Your task to perform on an android device: open sync settings in chrome Image 0: 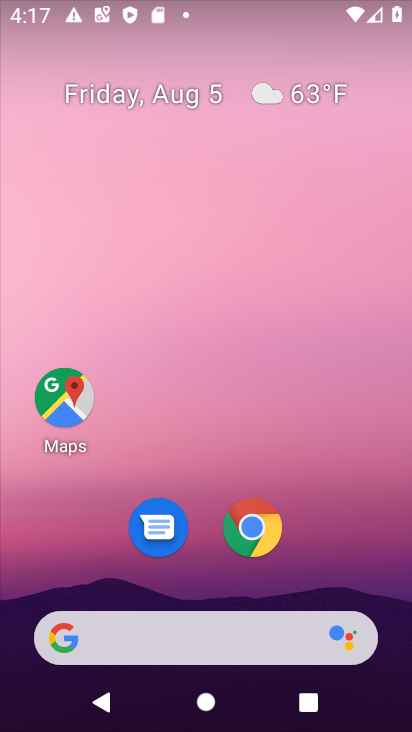
Step 0: click (257, 537)
Your task to perform on an android device: open sync settings in chrome Image 1: 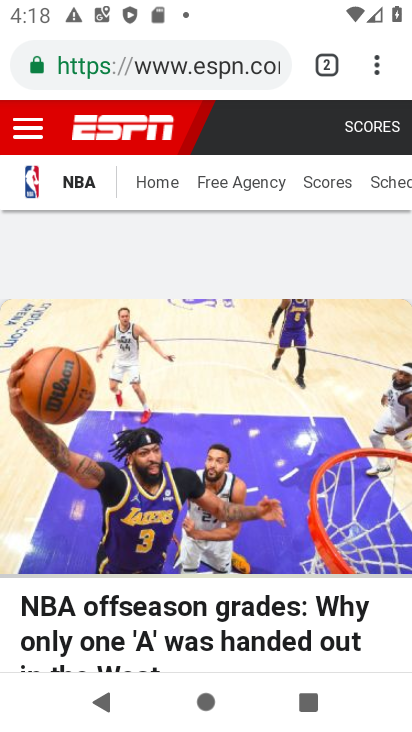
Step 1: click (376, 69)
Your task to perform on an android device: open sync settings in chrome Image 2: 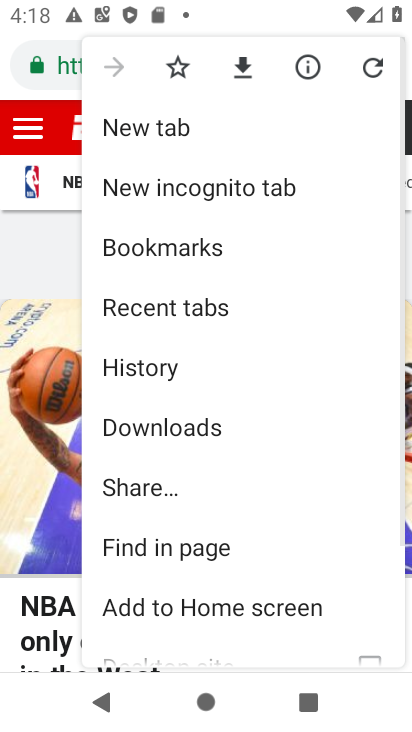
Step 2: drag from (139, 599) to (146, 303)
Your task to perform on an android device: open sync settings in chrome Image 3: 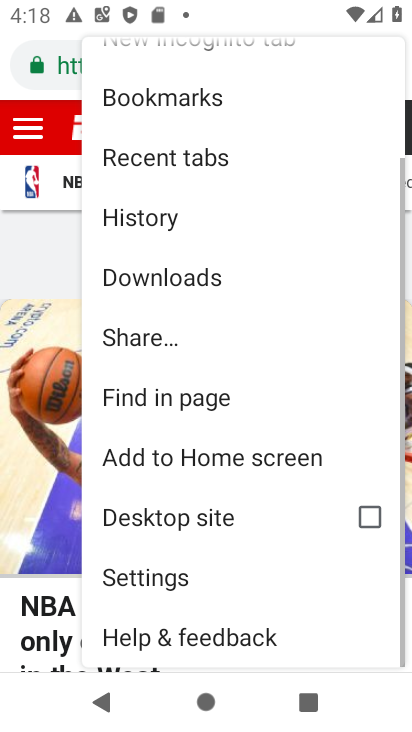
Step 3: click (167, 571)
Your task to perform on an android device: open sync settings in chrome Image 4: 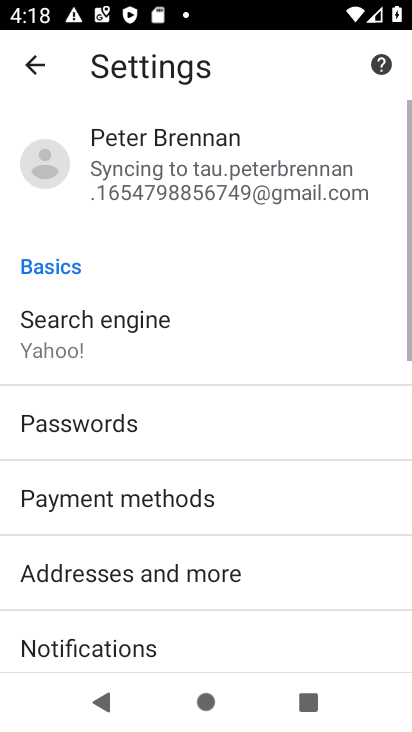
Step 4: drag from (158, 631) to (155, 211)
Your task to perform on an android device: open sync settings in chrome Image 5: 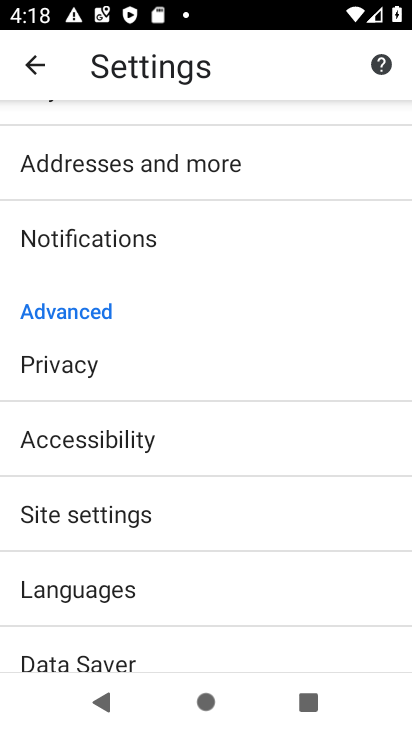
Step 5: click (101, 516)
Your task to perform on an android device: open sync settings in chrome Image 6: 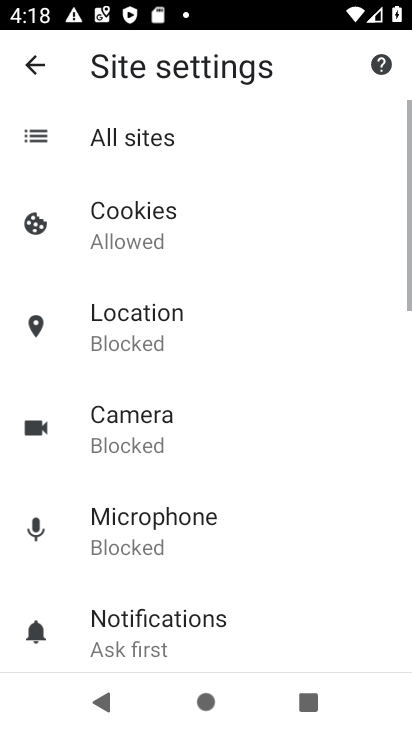
Step 6: drag from (159, 611) to (174, 232)
Your task to perform on an android device: open sync settings in chrome Image 7: 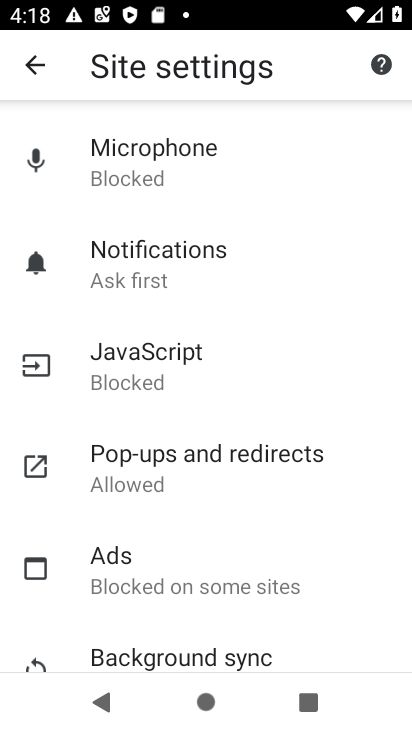
Step 7: click (132, 661)
Your task to perform on an android device: open sync settings in chrome Image 8: 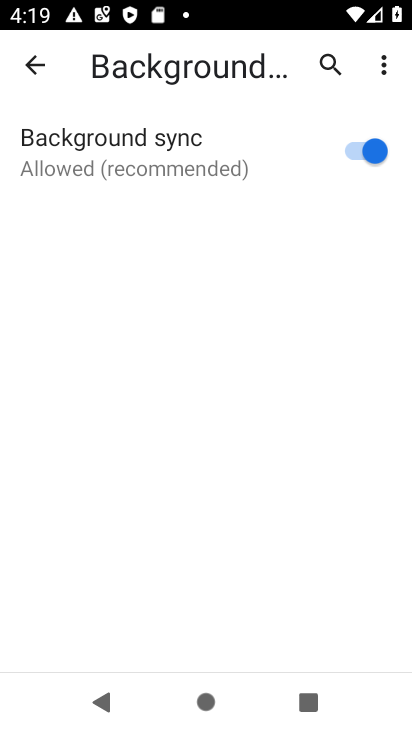
Step 8: task complete